Your task to perform on an android device: delete location history Image 0: 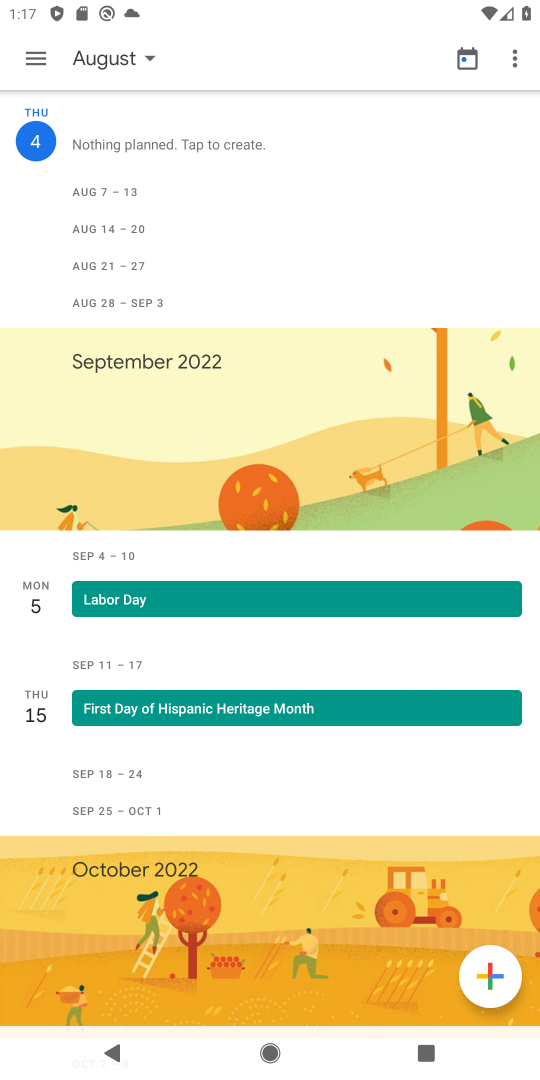
Step 0: press home button
Your task to perform on an android device: delete location history Image 1: 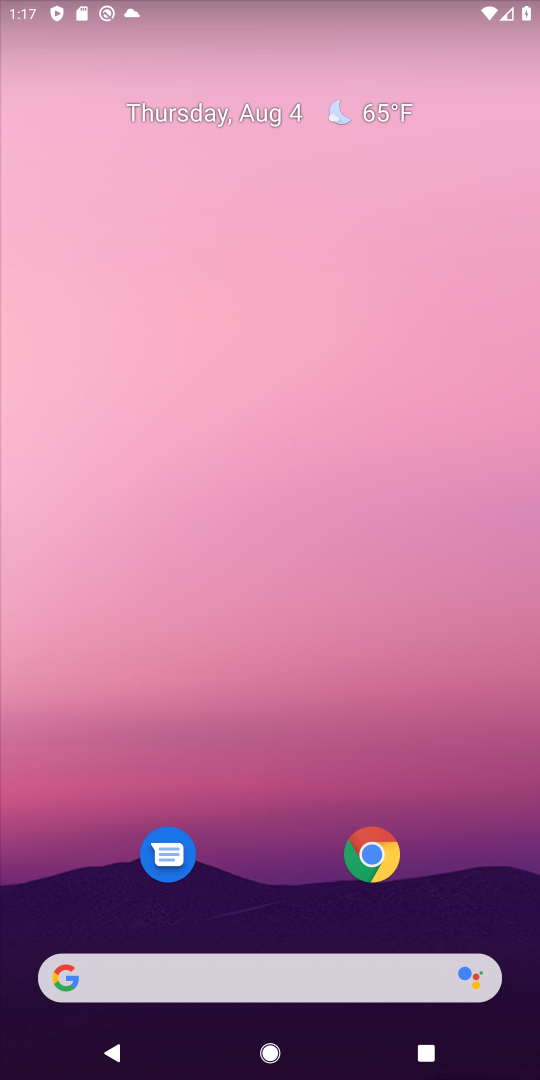
Step 1: drag from (227, 714) to (251, 181)
Your task to perform on an android device: delete location history Image 2: 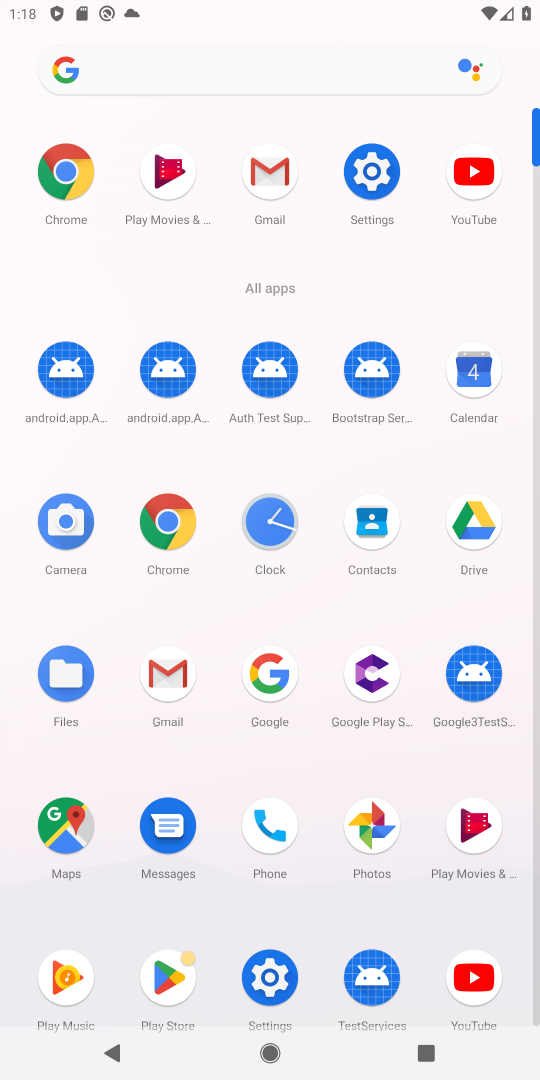
Step 2: click (251, 181)
Your task to perform on an android device: delete location history Image 3: 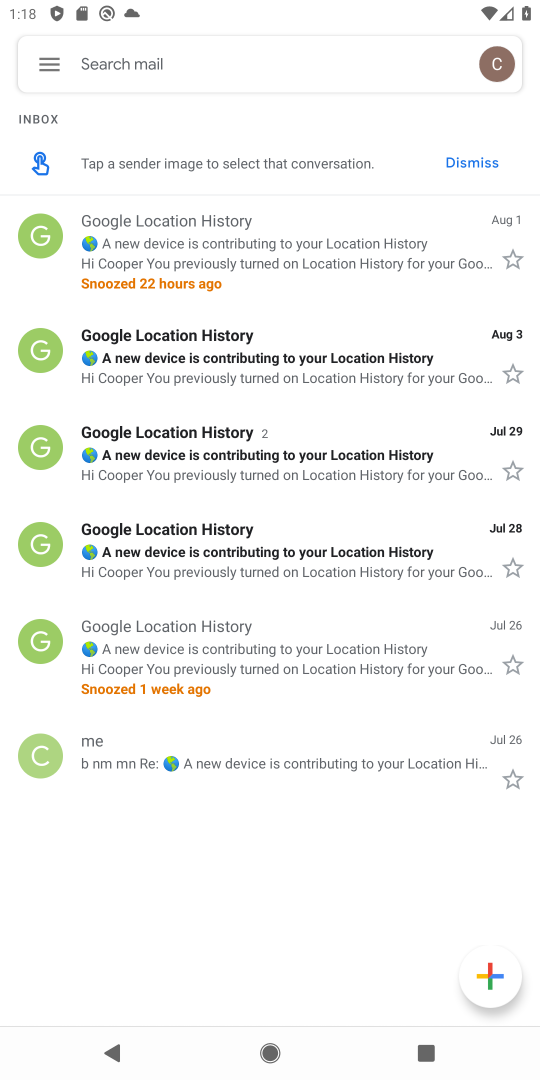
Step 3: press home button
Your task to perform on an android device: delete location history Image 4: 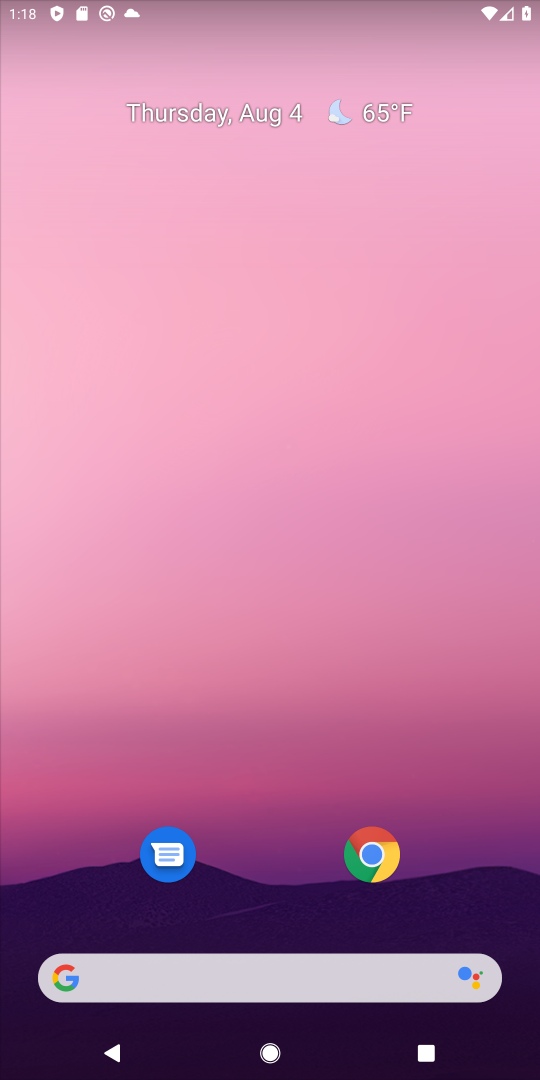
Step 4: drag from (247, 747) to (250, 15)
Your task to perform on an android device: delete location history Image 5: 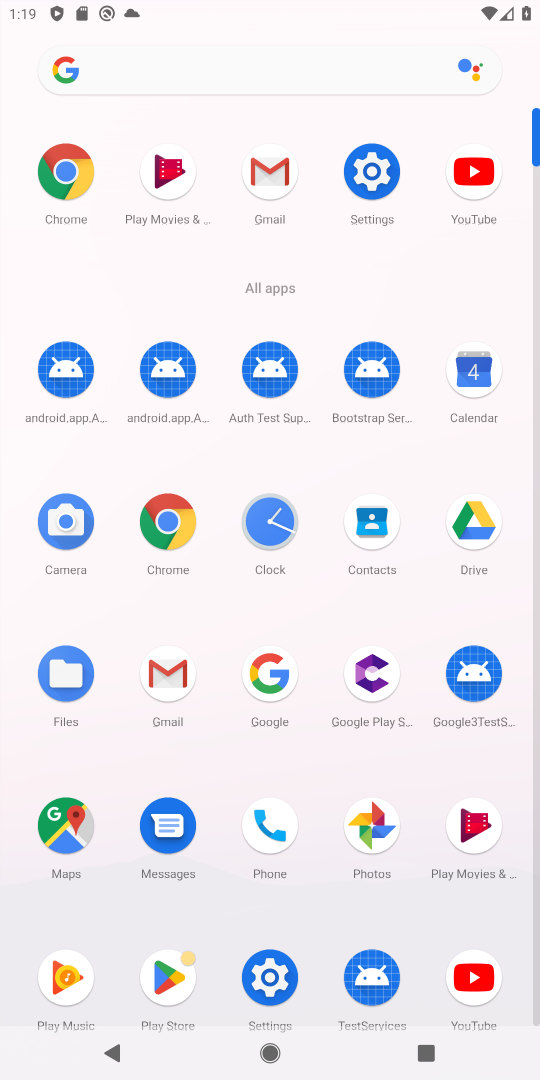
Step 5: click (374, 177)
Your task to perform on an android device: delete location history Image 6: 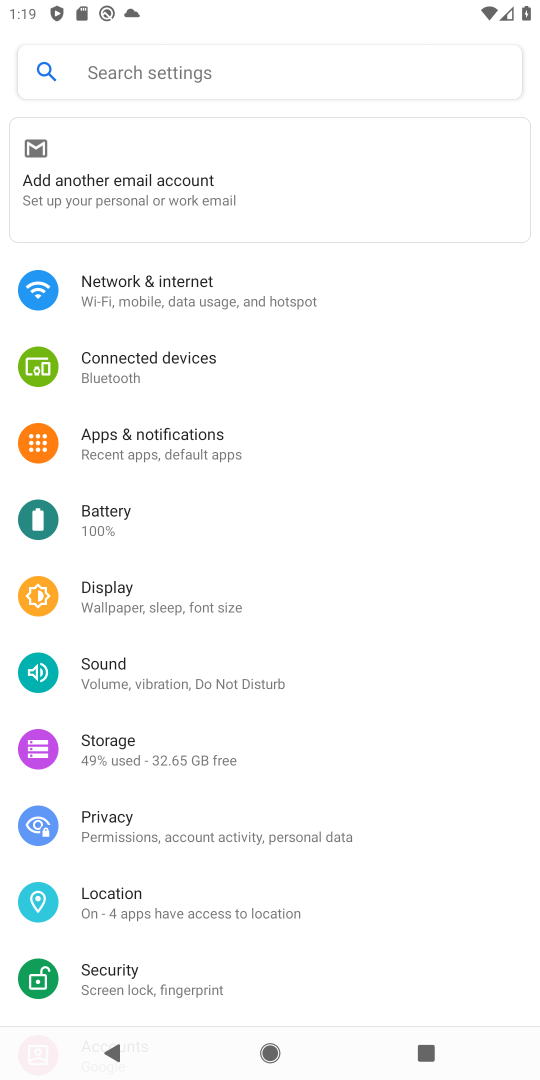
Step 6: click (148, 890)
Your task to perform on an android device: delete location history Image 7: 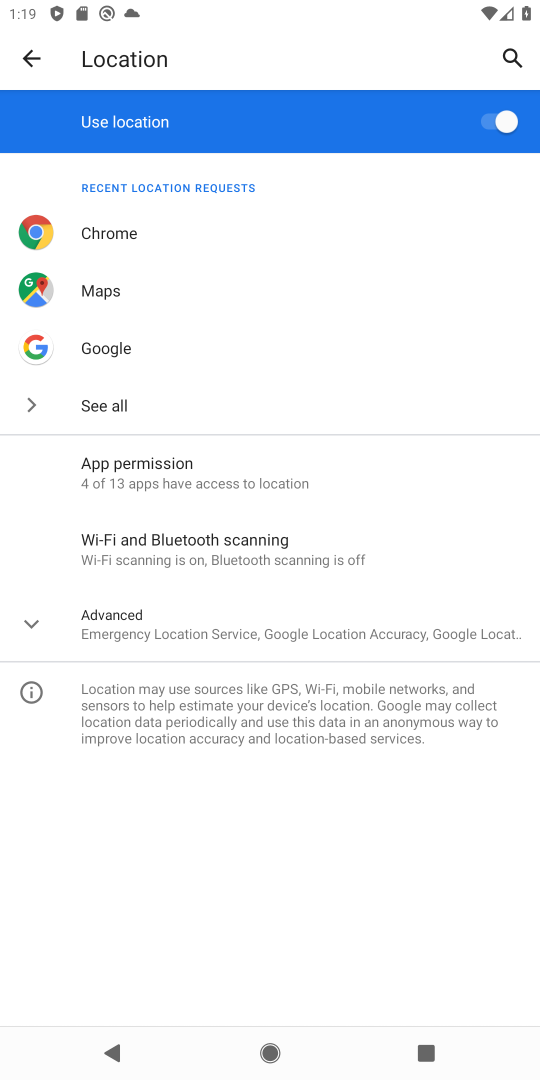
Step 7: task complete